Your task to perform on an android device: toggle translation in the chrome app Image 0: 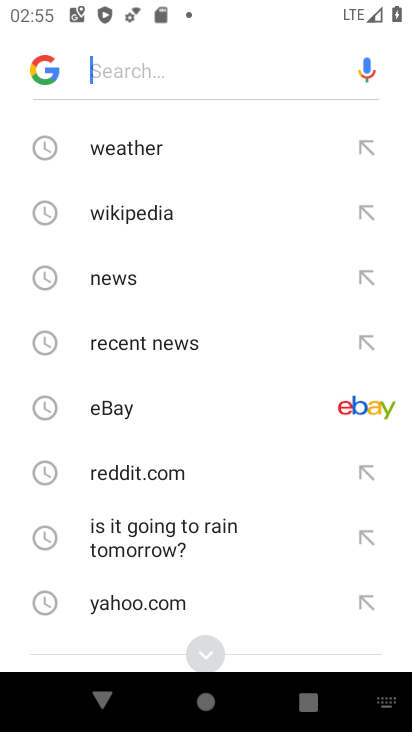
Step 0: press back button
Your task to perform on an android device: toggle translation in the chrome app Image 1: 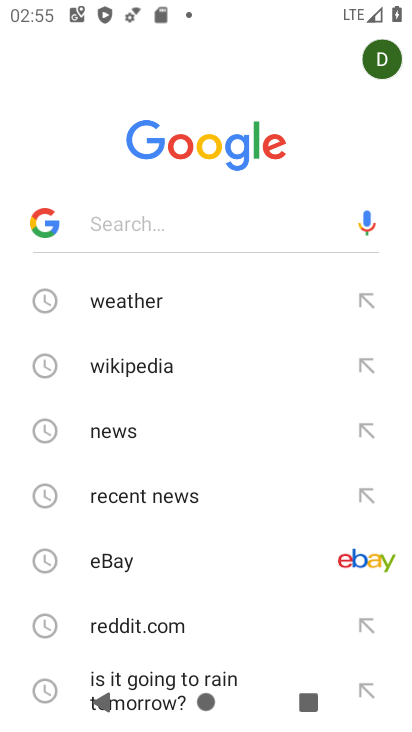
Step 1: press back button
Your task to perform on an android device: toggle translation in the chrome app Image 2: 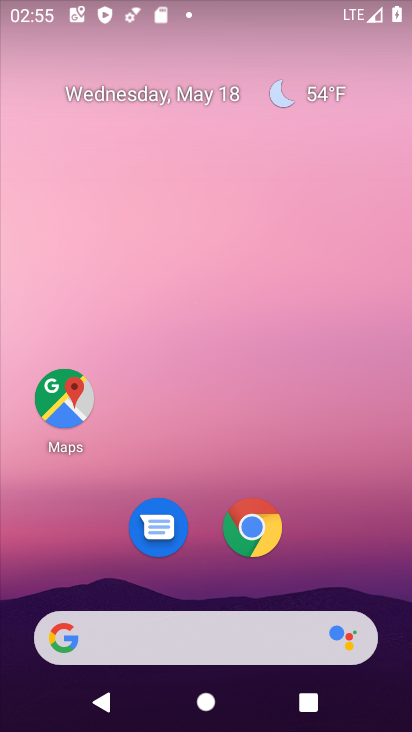
Step 2: click (249, 531)
Your task to perform on an android device: toggle translation in the chrome app Image 3: 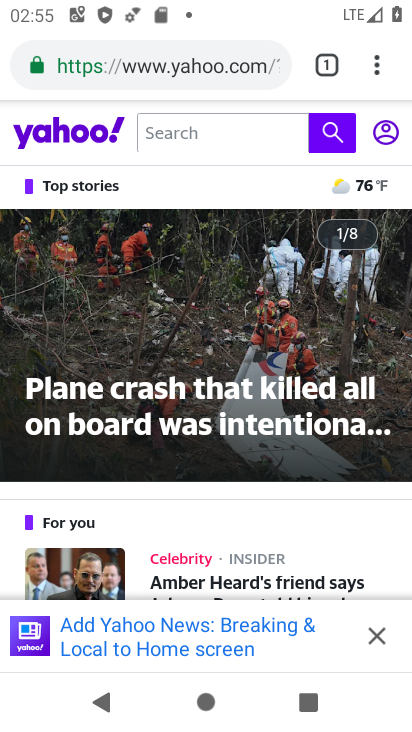
Step 3: click (380, 59)
Your task to perform on an android device: toggle translation in the chrome app Image 4: 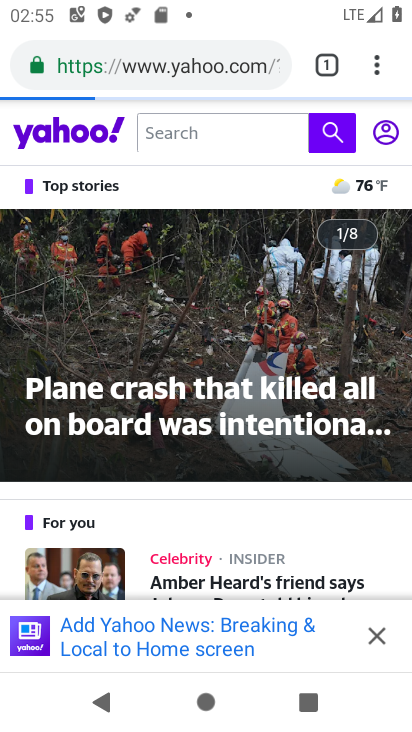
Step 4: drag from (380, 59) to (161, 599)
Your task to perform on an android device: toggle translation in the chrome app Image 5: 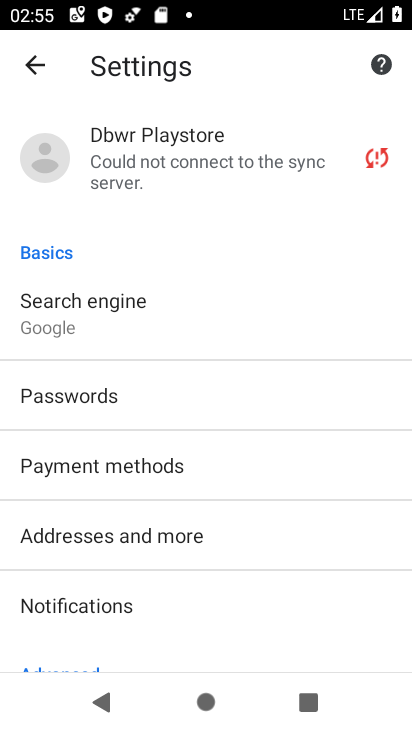
Step 5: drag from (217, 556) to (207, 220)
Your task to perform on an android device: toggle translation in the chrome app Image 6: 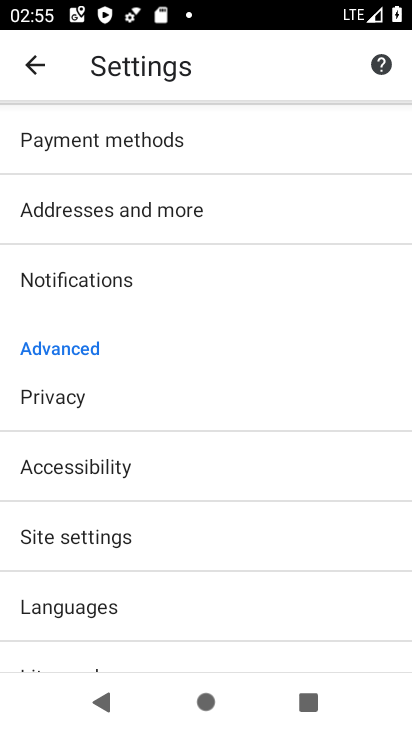
Step 6: click (134, 603)
Your task to perform on an android device: toggle translation in the chrome app Image 7: 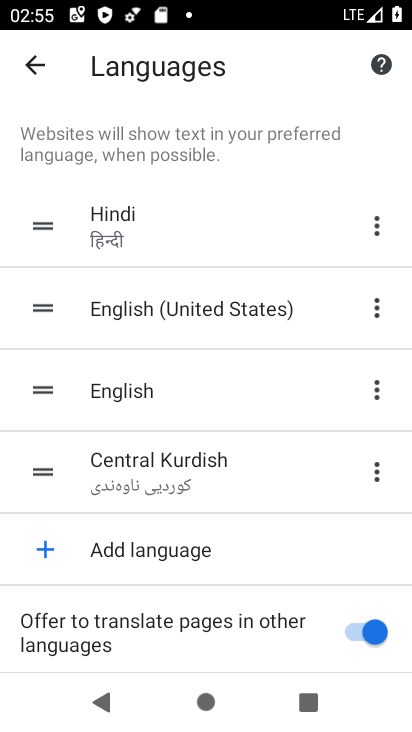
Step 7: click (375, 640)
Your task to perform on an android device: toggle translation in the chrome app Image 8: 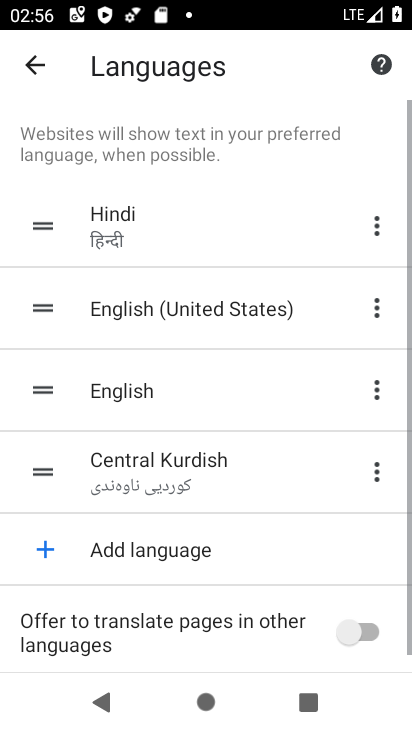
Step 8: task complete